Your task to perform on an android device: turn notification dots off Image 0: 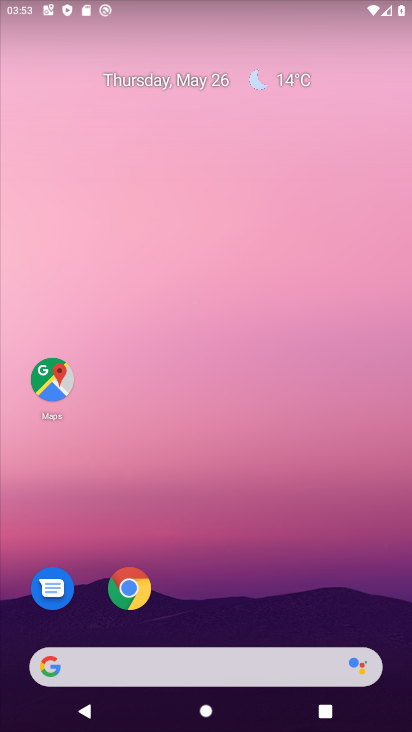
Step 0: drag from (251, 622) to (265, 129)
Your task to perform on an android device: turn notification dots off Image 1: 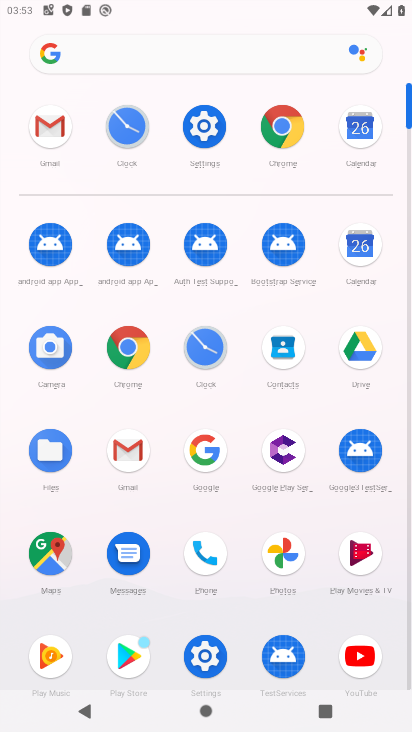
Step 1: click (214, 143)
Your task to perform on an android device: turn notification dots off Image 2: 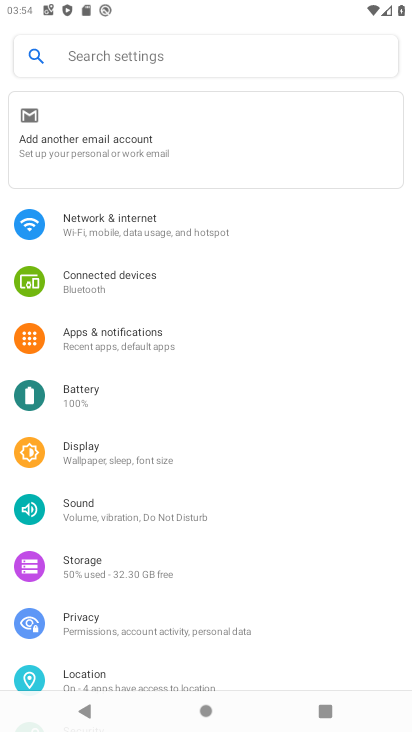
Step 2: click (194, 349)
Your task to perform on an android device: turn notification dots off Image 3: 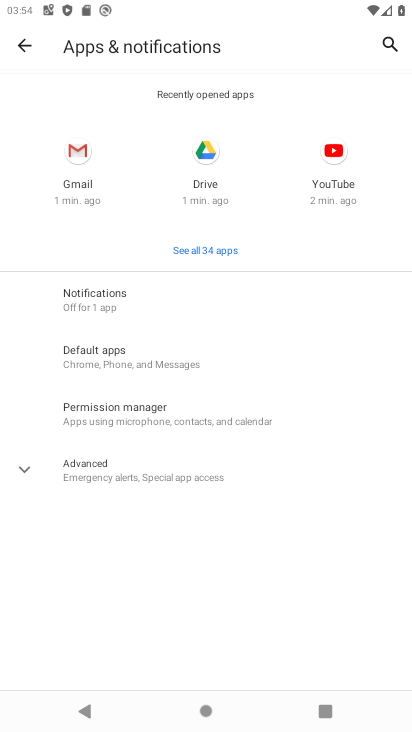
Step 3: click (179, 292)
Your task to perform on an android device: turn notification dots off Image 4: 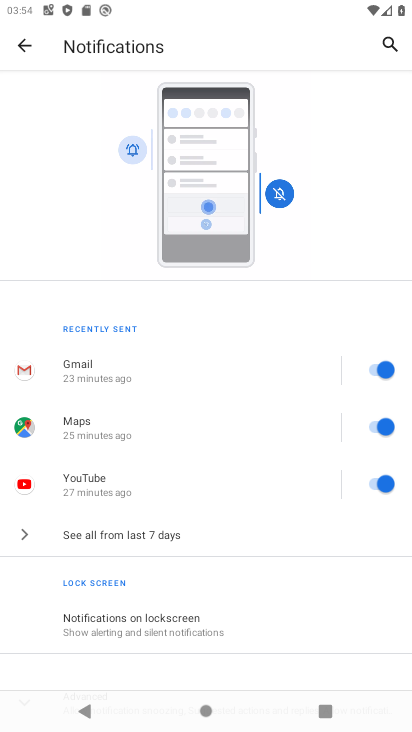
Step 4: drag from (264, 585) to (311, 235)
Your task to perform on an android device: turn notification dots off Image 5: 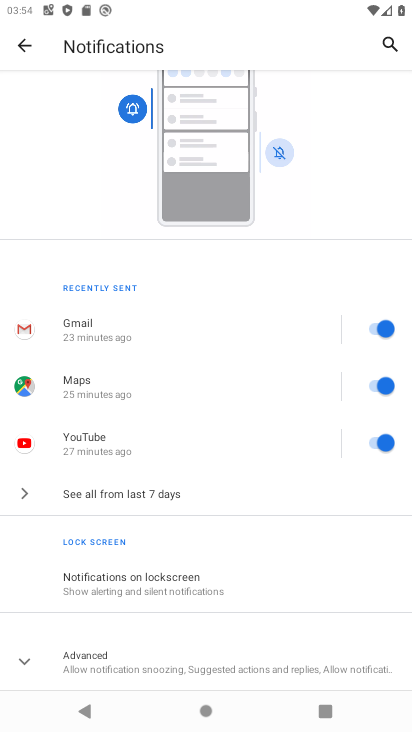
Step 5: click (156, 665)
Your task to perform on an android device: turn notification dots off Image 6: 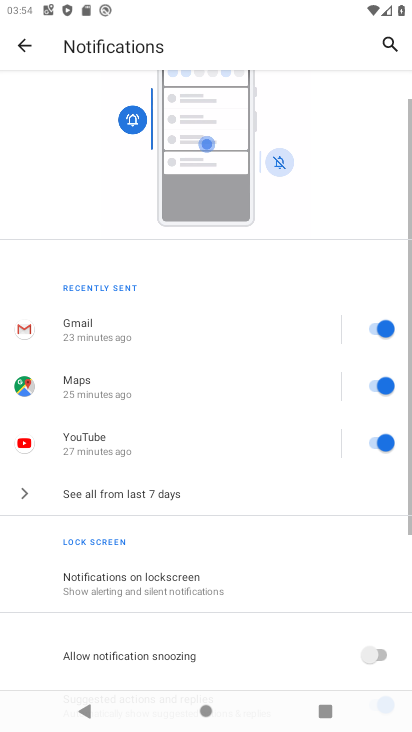
Step 6: drag from (214, 623) to (264, 358)
Your task to perform on an android device: turn notification dots off Image 7: 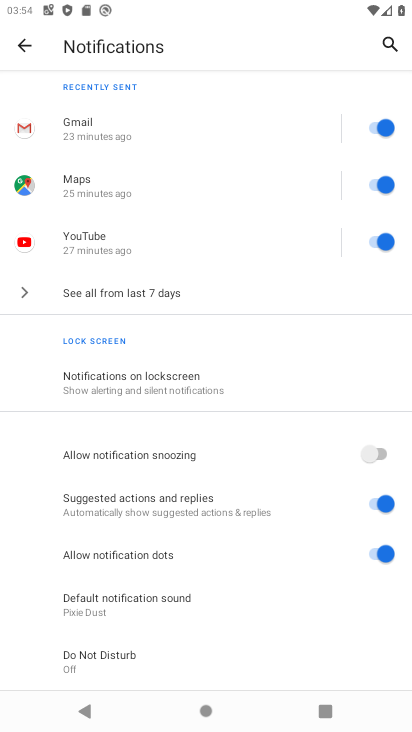
Step 7: click (386, 543)
Your task to perform on an android device: turn notification dots off Image 8: 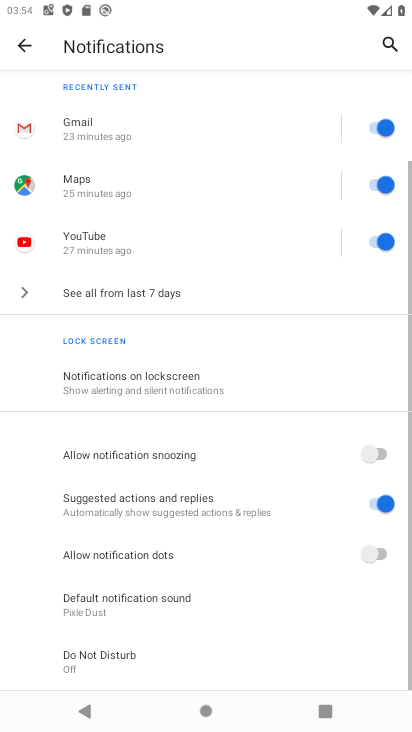
Step 8: task complete